Your task to perform on an android device: Go to sound settings Image 0: 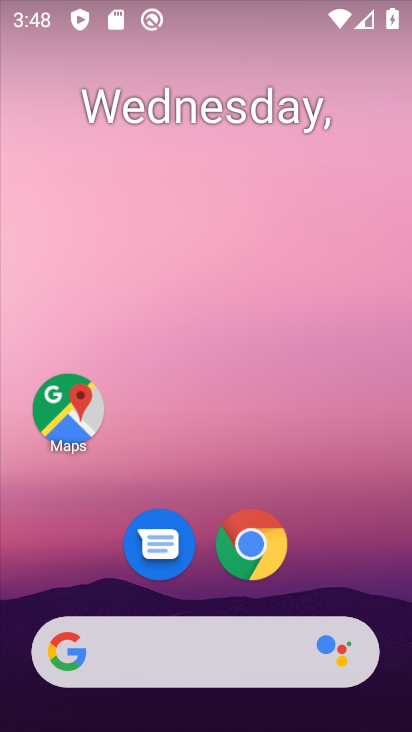
Step 0: drag from (177, 584) to (299, 65)
Your task to perform on an android device: Go to sound settings Image 1: 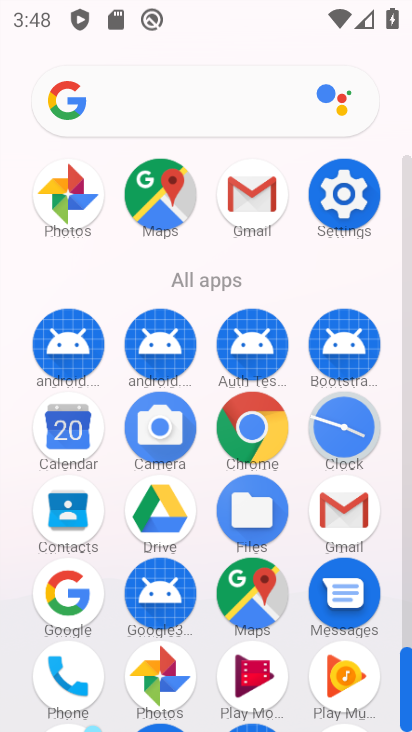
Step 1: click (344, 198)
Your task to perform on an android device: Go to sound settings Image 2: 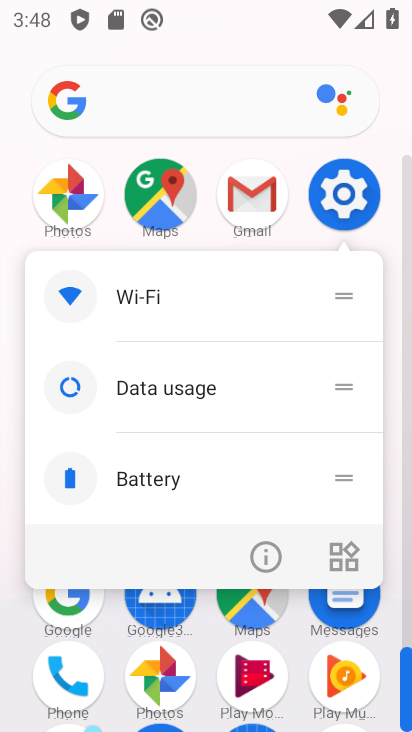
Step 2: click (337, 194)
Your task to perform on an android device: Go to sound settings Image 3: 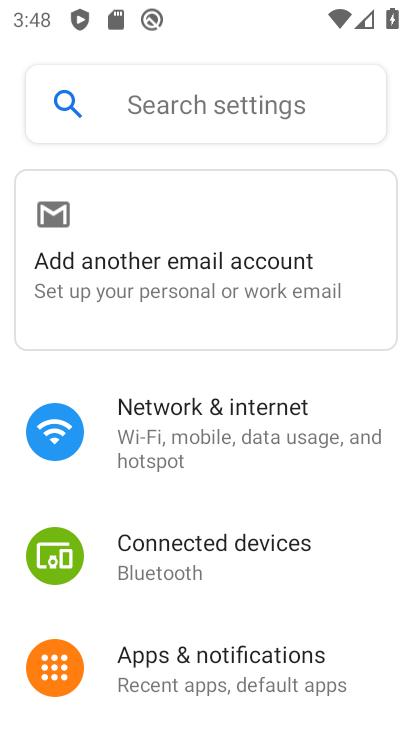
Step 3: drag from (232, 597) to (366, 99)
Your task to perform on an android device: Go to sound settings Image 4: 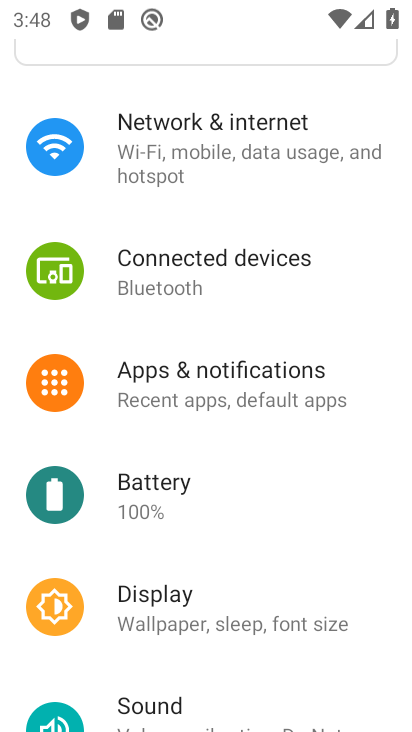
Step 4: drag from (263, 524) to (352, 221)
Your task to perform on an android device: Go to sound settings Image 5: 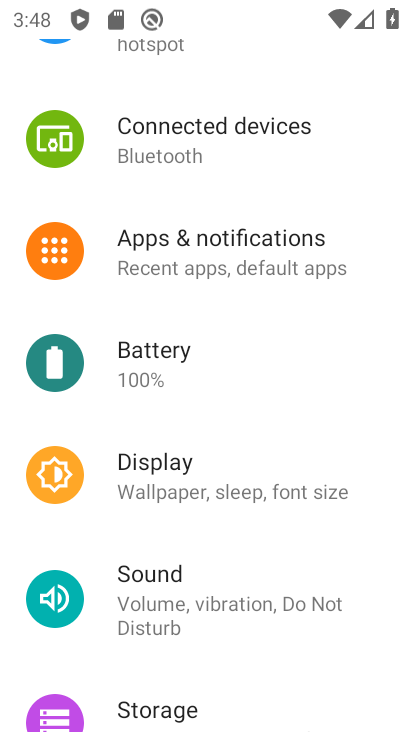
Step 5: click (174, 585)
Your task to perform on an android device: Go to sound settings Image 6: 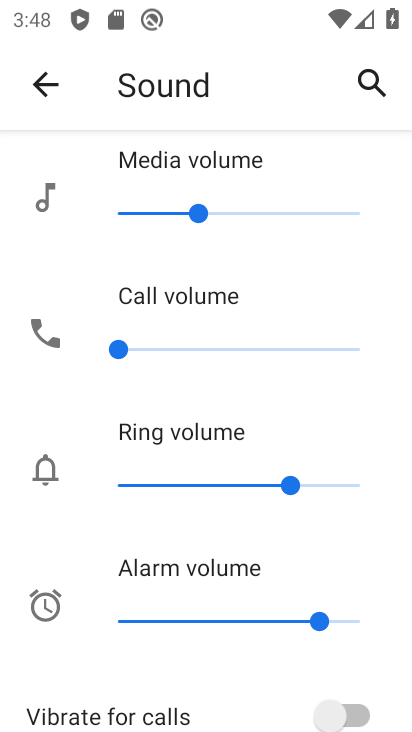
Step 6: task complete